Your task to perform on an android device: empty trash in google photos Image 0: 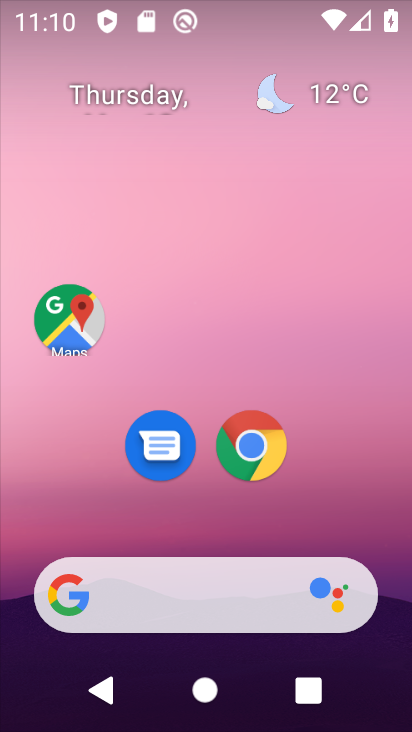
Step 0: drag from (211, 586) to (185, 219)
Your task to perform on an android device: empty trash in google photos Image 1: 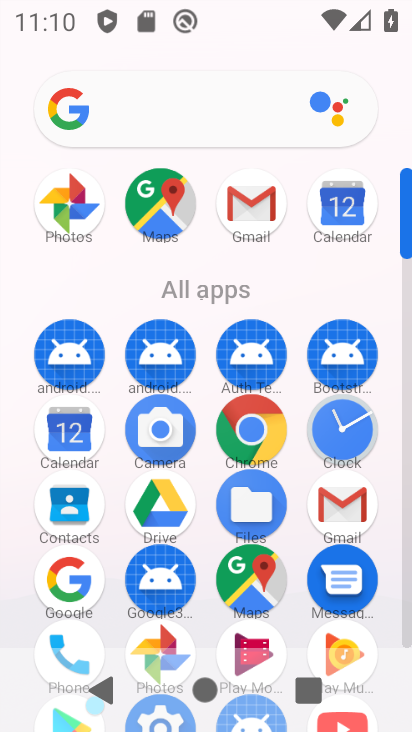
Step 1: click (170, 632)
Your task to perform on an android device: empty trash in google photos Image 2: 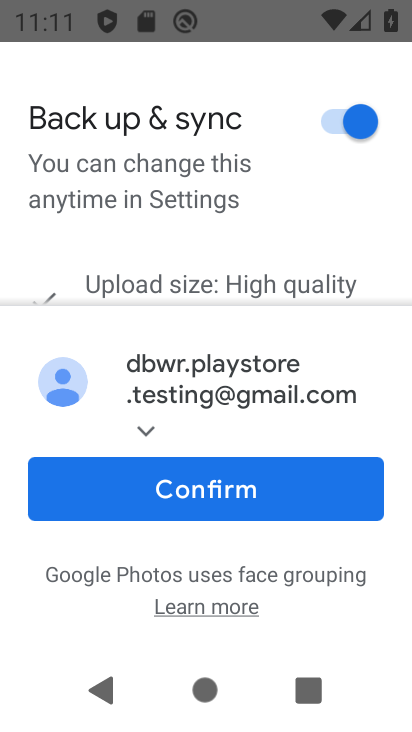
Step 2: click (178, 505)
Your task to perform on an android device: empty trash in google photos Image 3: 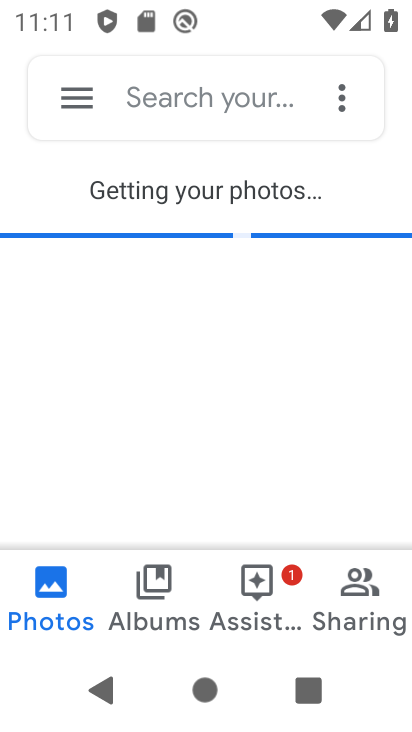
Step 3: click (70, 103)
Your task to perform on an android device: empty trash in google photos Image 4: 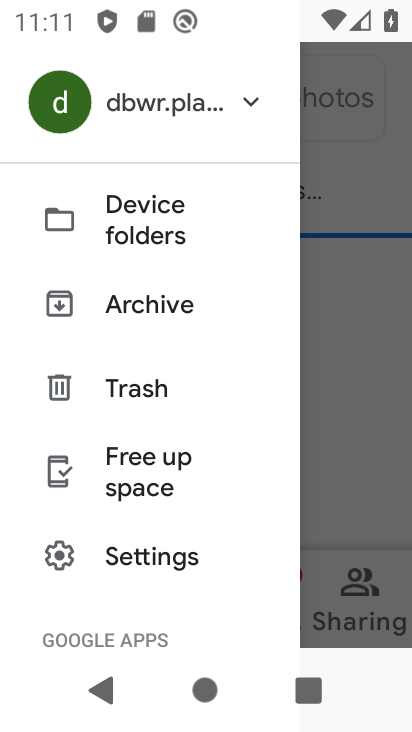
Step 4: click (121, 397)
Your task to perform on an android device: empty trash in google photos Image 5: 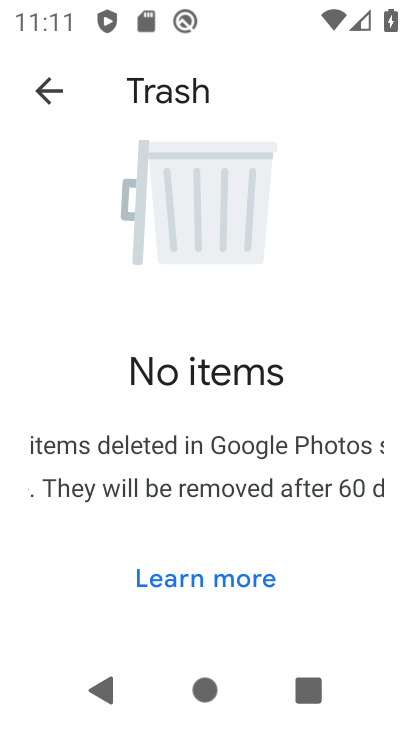
Step 5: task complete